Your task to perform on an android device: check storage Image 0: 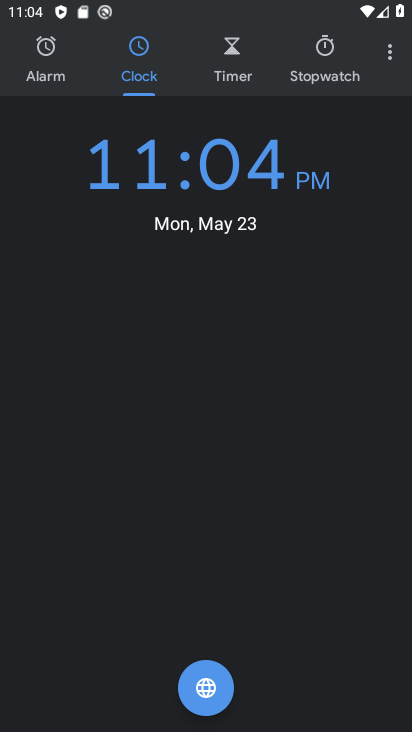
Step 0: press home button
Your task to perform on an android device: check storage Image 1: 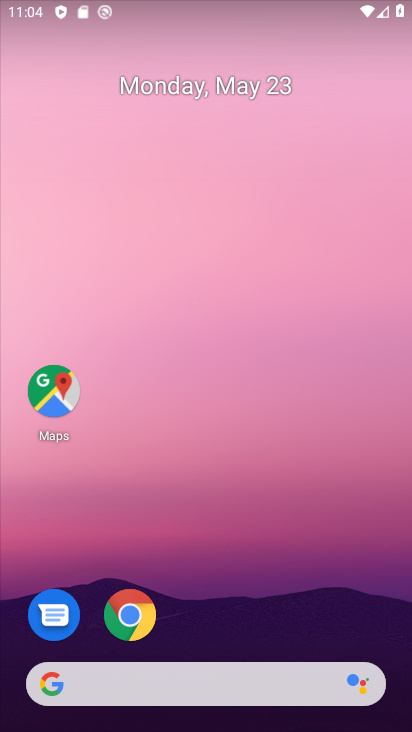
Step 1: drag from (219, 597) to (307, 3)
Your task to perform on an android device: check storage Image 2: 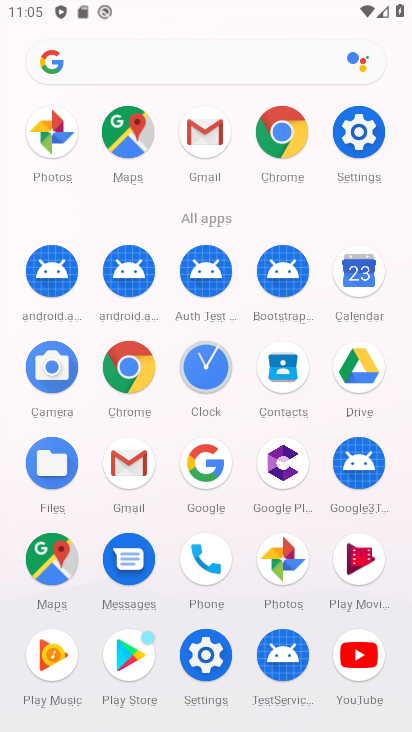
Step 2: click (368, 188)
Your task to perform on an android device: check storage Image 3: 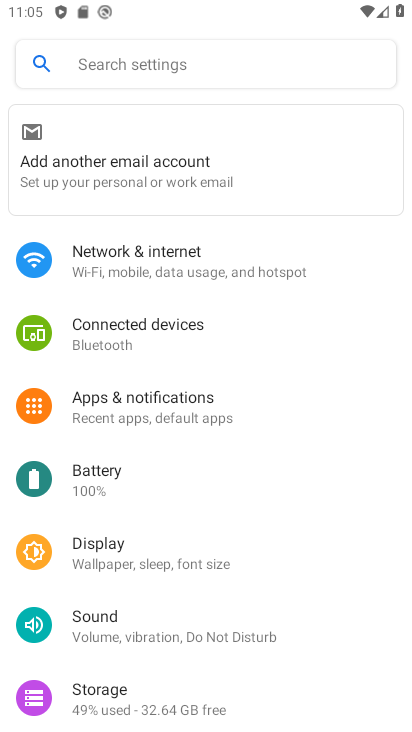
Step 3: click (78, 697)
Your task to perform on an android device: check storage Image 4: 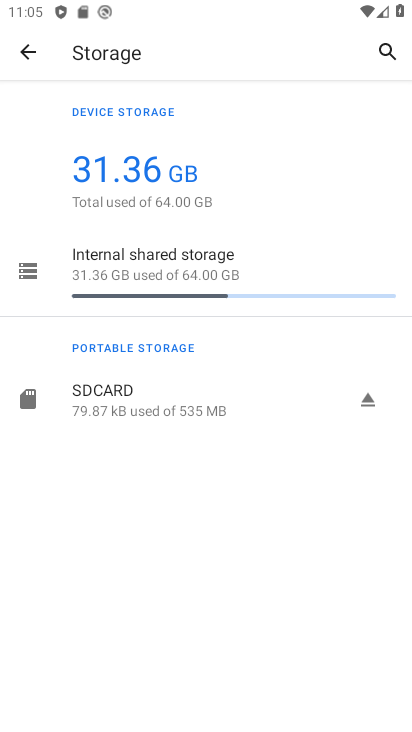
Step 4: task complete